Your task to perform on an android device: Add macbook to the cart on newegg.com, then select checkout. Image 0: 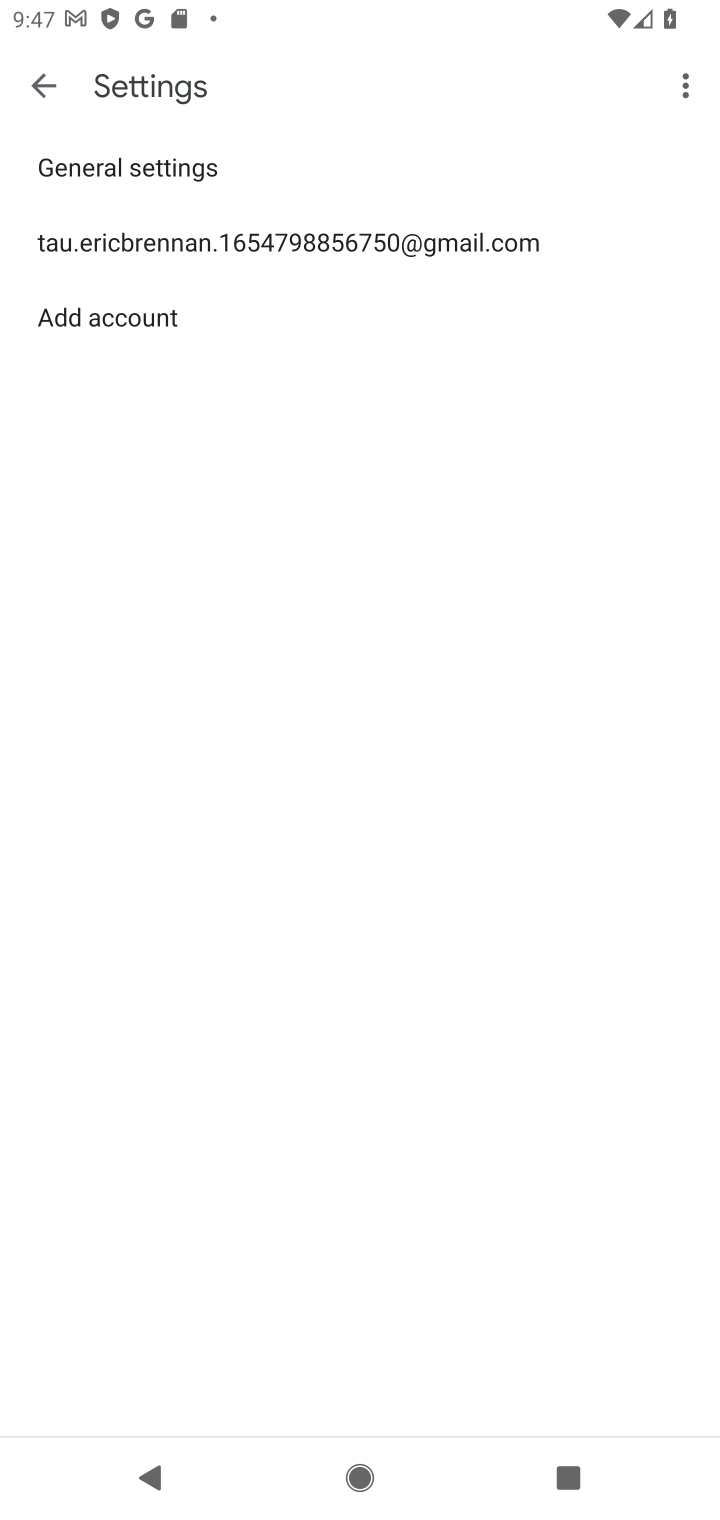
Step 0: press home button
Your task to perform on an android device: Add macbook to the cart on newegg.com, then select checkout. Image 1: 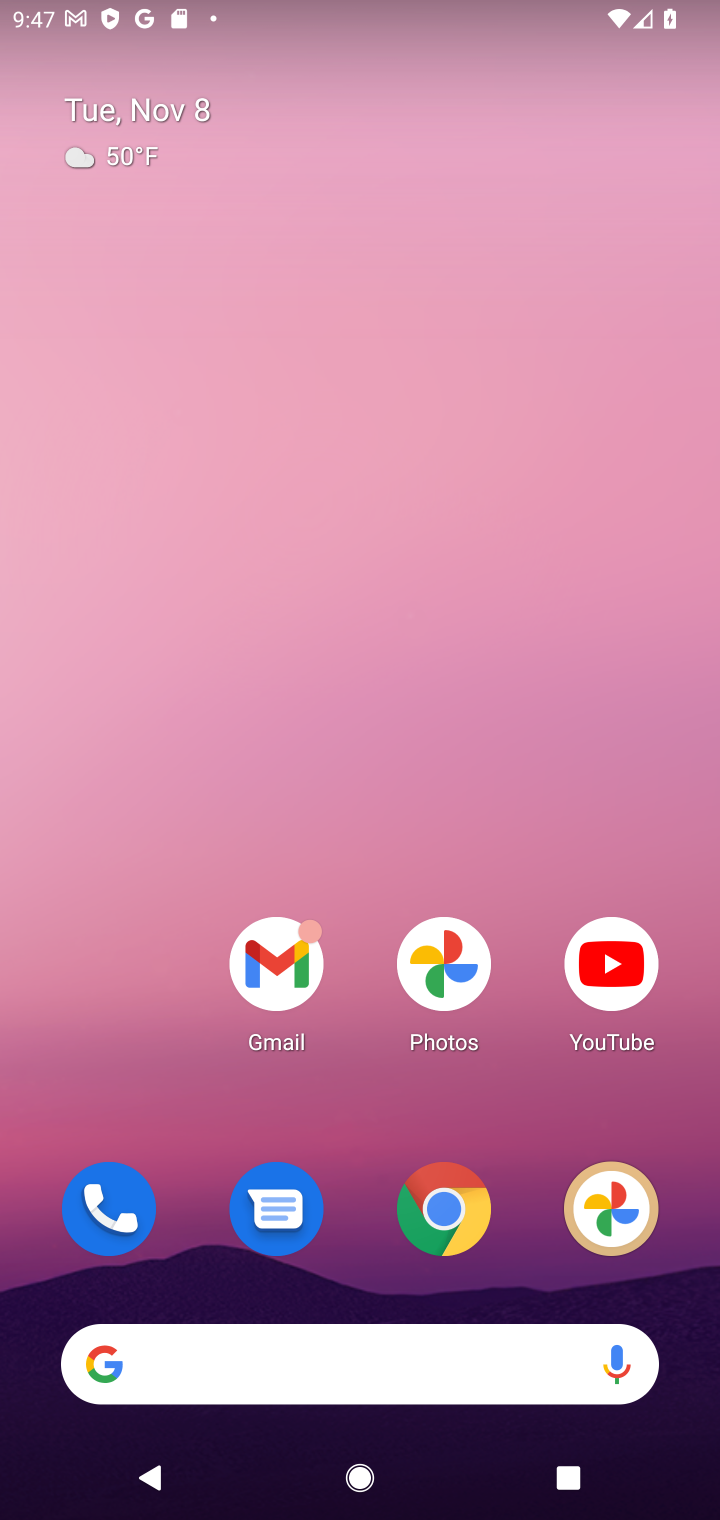
Step 1: click (444, 1207)
Your task to perform on an android device: Add macbook to the cart on newegg.com, then select checkout. Image 2: 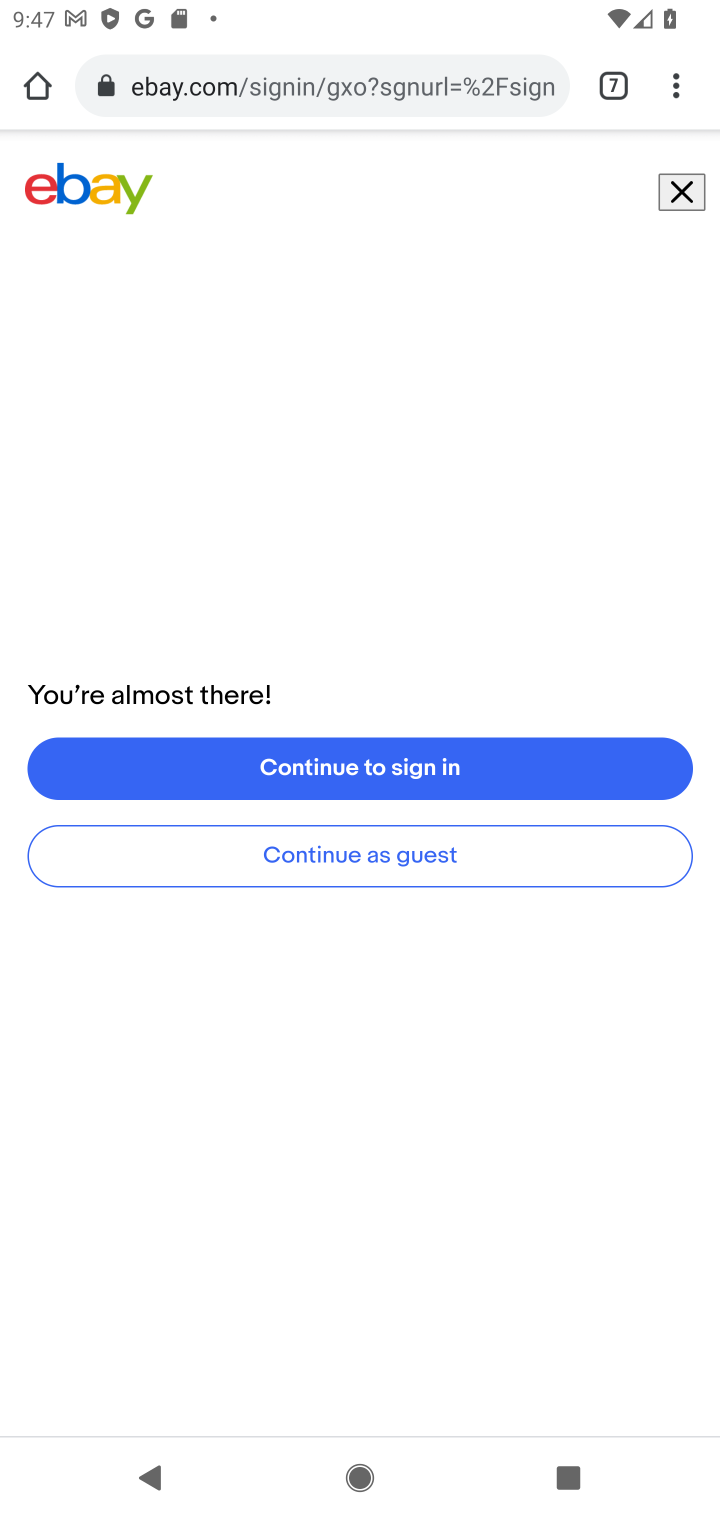
Step 2: click (619, 81)
Your task to perform on an android device: Add macbook to the cart on newegg.com, then select checkout. Image 3: 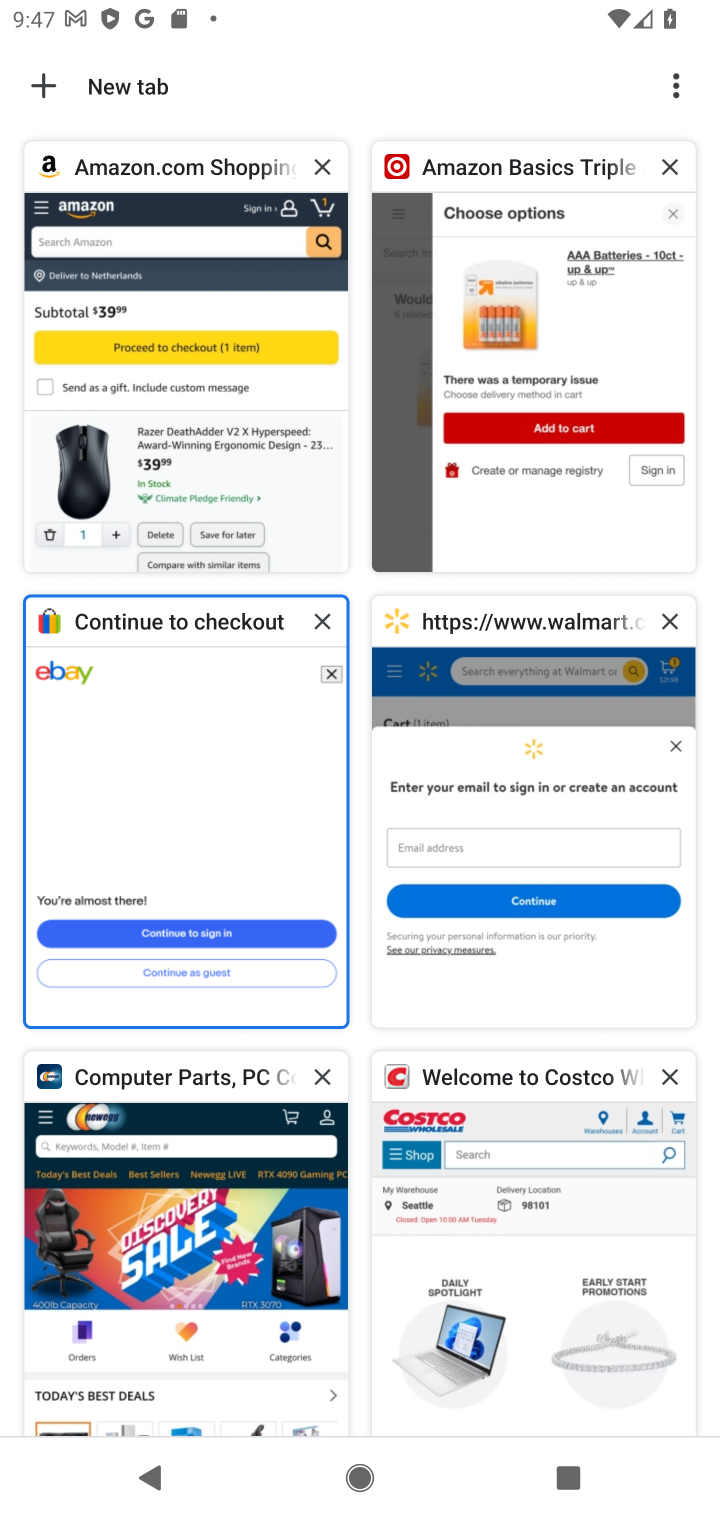
Step 3: click (46, 1295)
Your task to perform on an android device: Add macbook to the cart on newegg.com, then select checkout. Image 4: 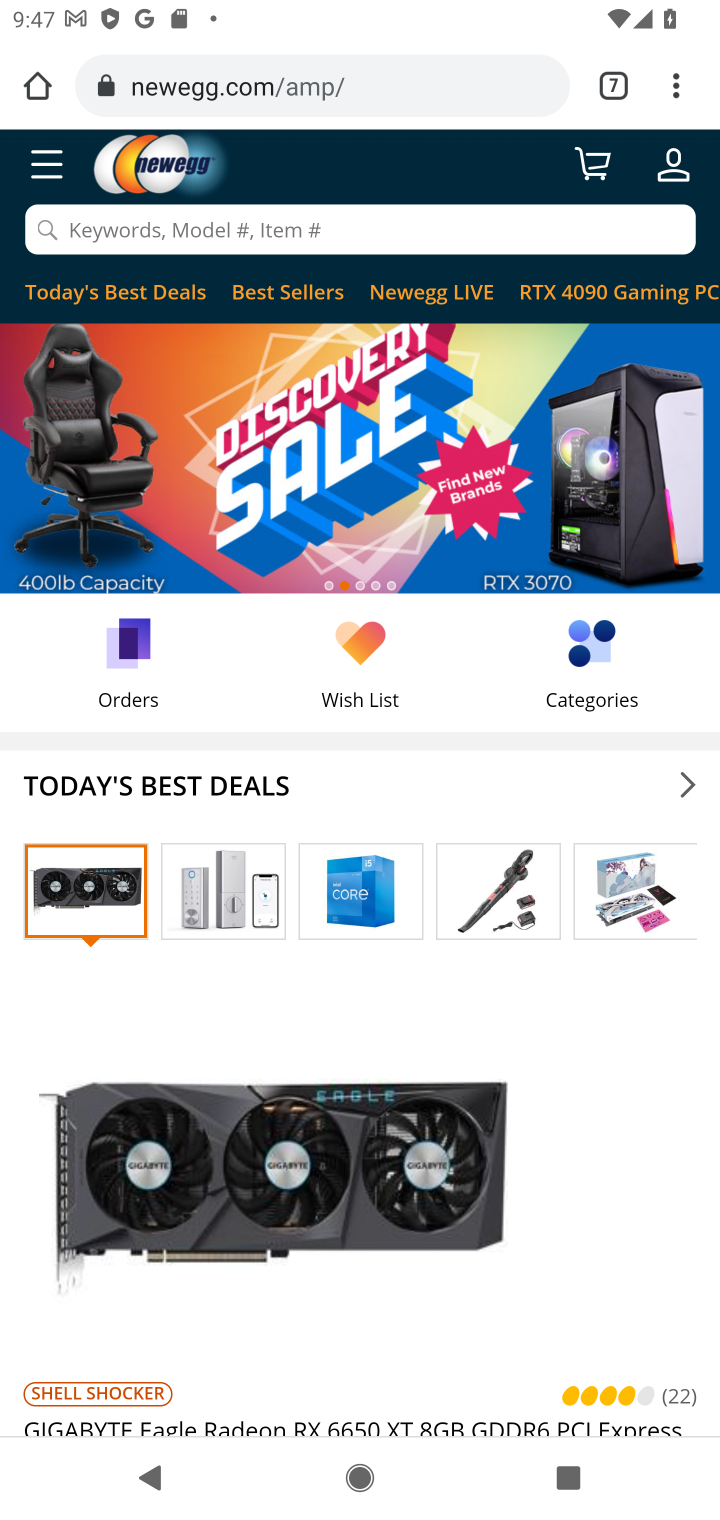
Step 4: click (178, 233)
Your task to perform on an android device: Add macbook to the cart on newegg.com, then select checkout. Image 5: 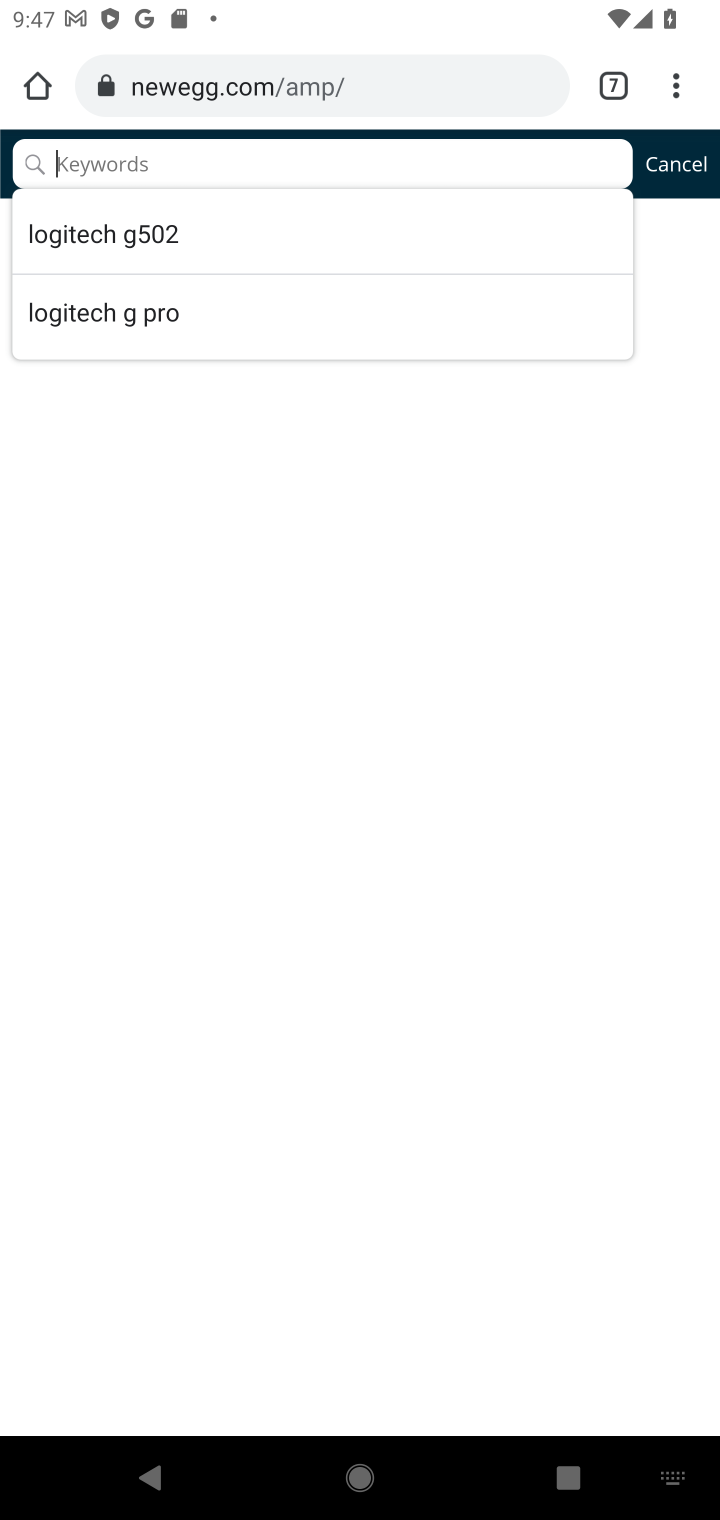
Step 5: type "macbook"
Your task to perform on an android device: Add macbook to the cart on newegg.com, then select checkout. Image 6: 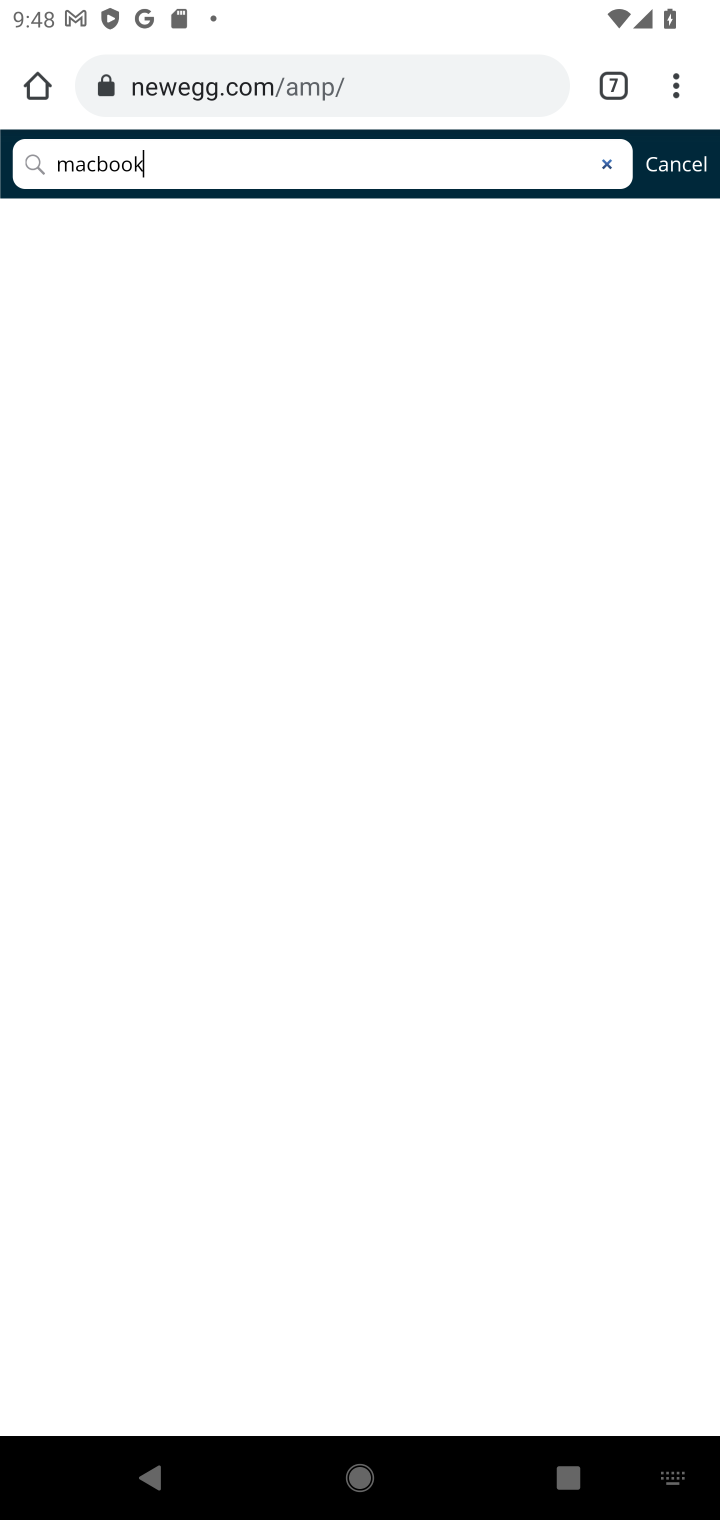
Step 6: click (30, 159)
Your task to perform on an android device: Add macbook to the cart on newegg.com, then select checkout. Image 7: 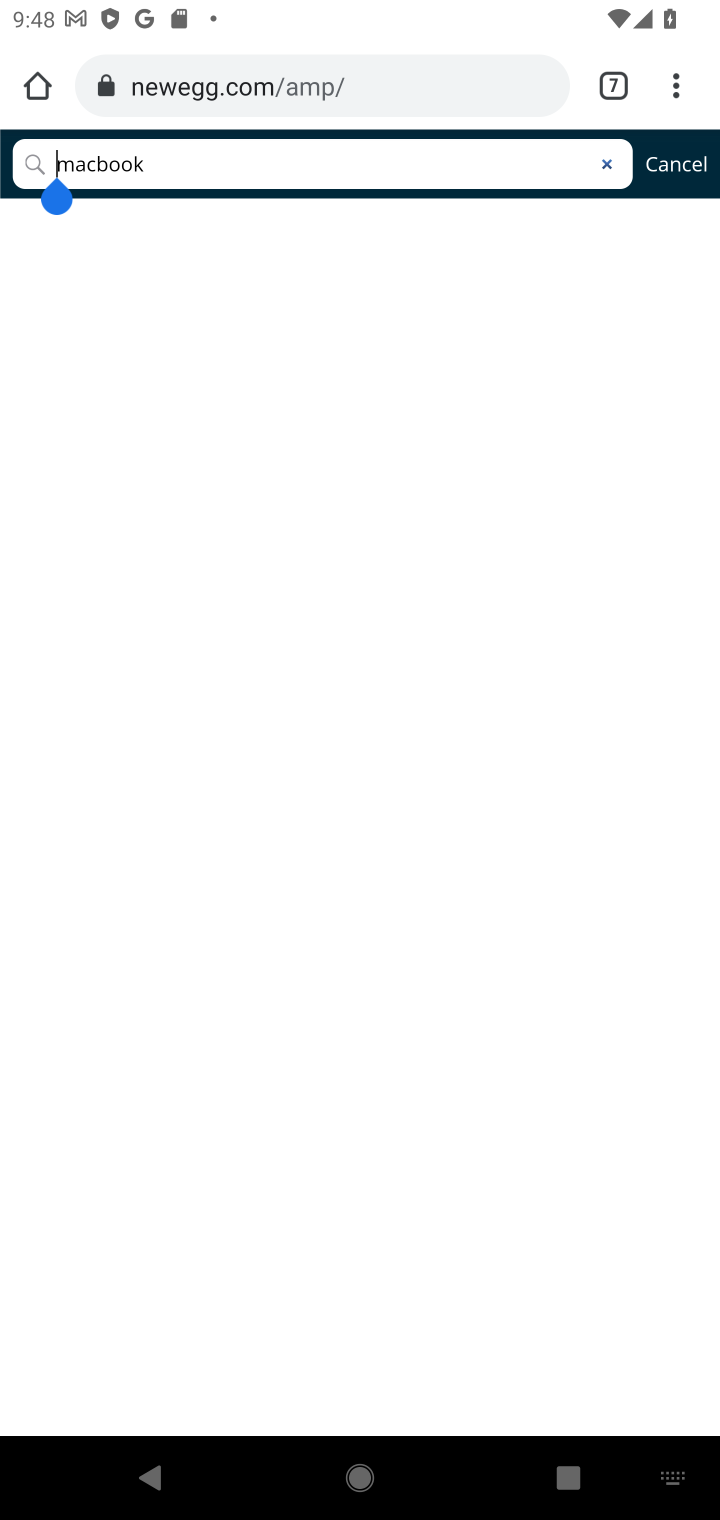
Step 7: click (295, 87)
Your task to perform on an android device: Add macbook to the cart on newegg.com, then select checkout. Image 8: 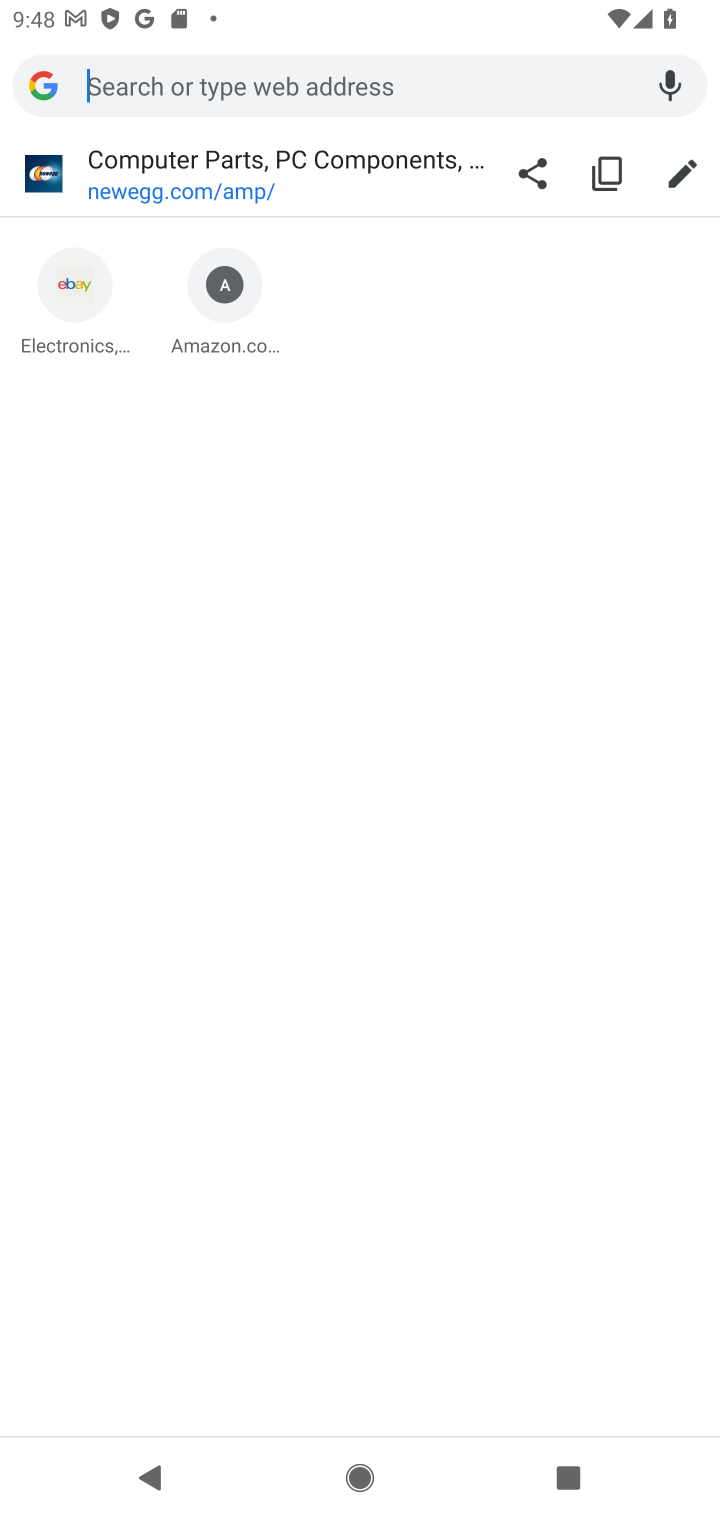
Step 8: type "newegg"
Your task to perform on an android device: Add macbook to the cart on newegg.com, then select checkout. Image 9: 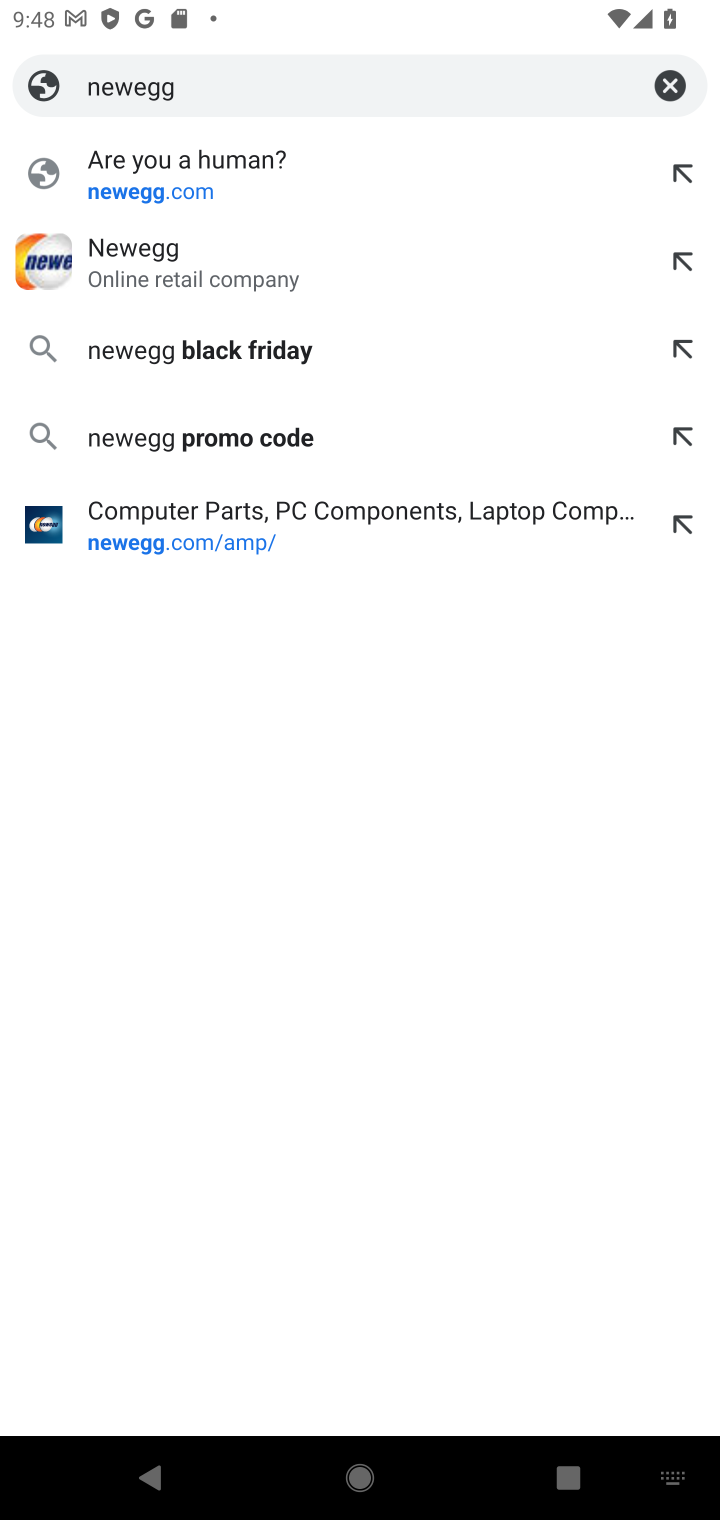
Step 9: click (126, 257)
Your task to perform on an android device: Add macbook to the cart on newegg.com, then select checkout. Image 10: 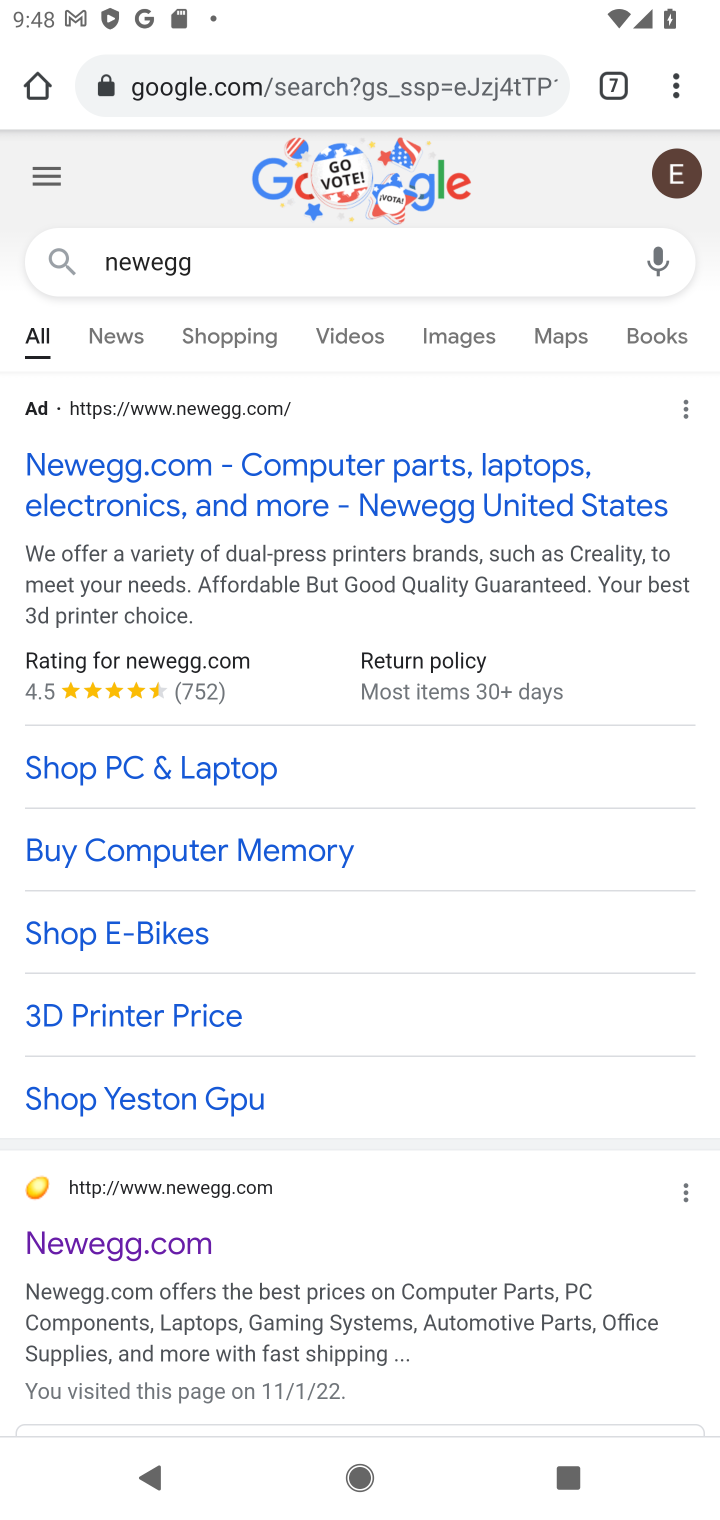
Step 10: drag from (155, 1278) to (290, 378)
Your task to perform on an android device: Add macbook to the cart on newegg.com, then select checkout. Image 11: 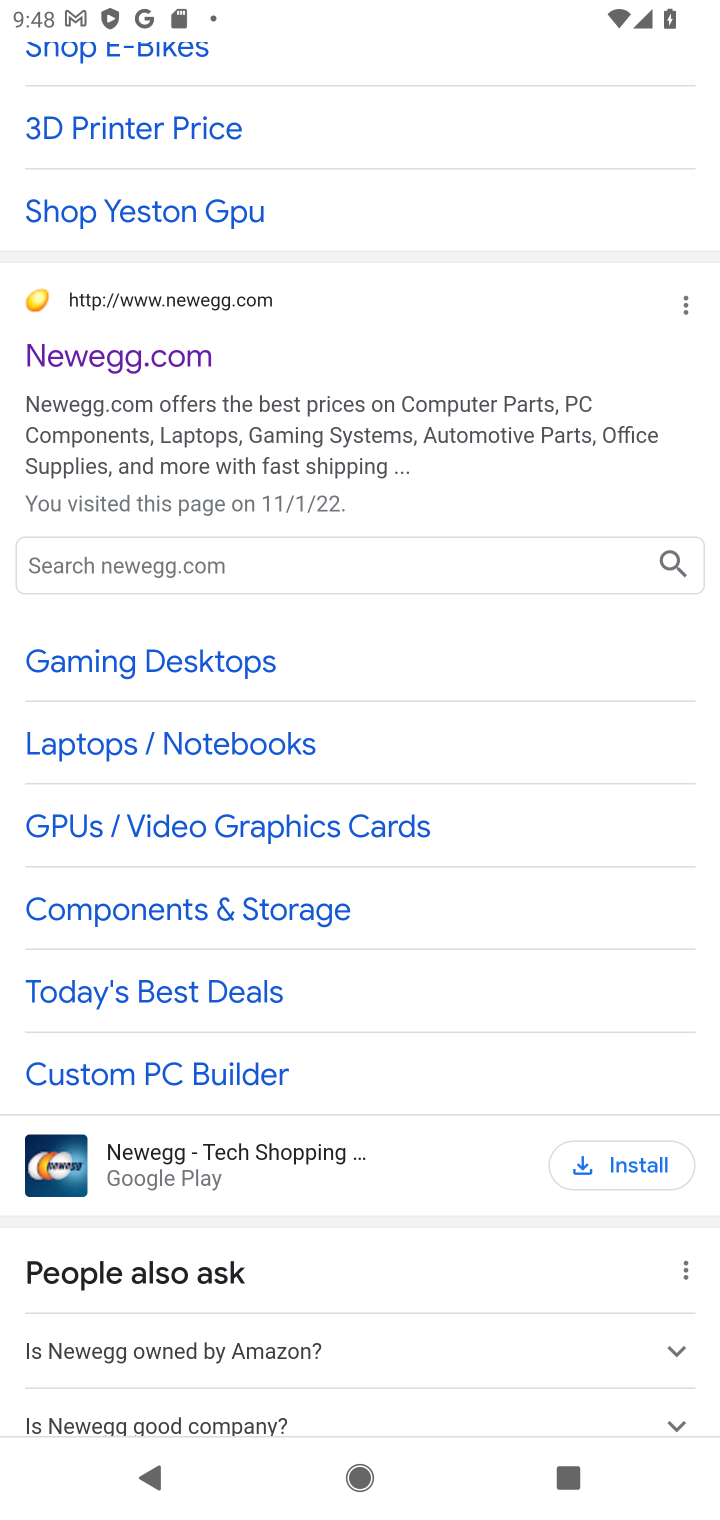
Step 11: click (87, 553)
Your task to perform on an android device: Add macbook to the cart on newegg.com, then select checkout. Image 12: 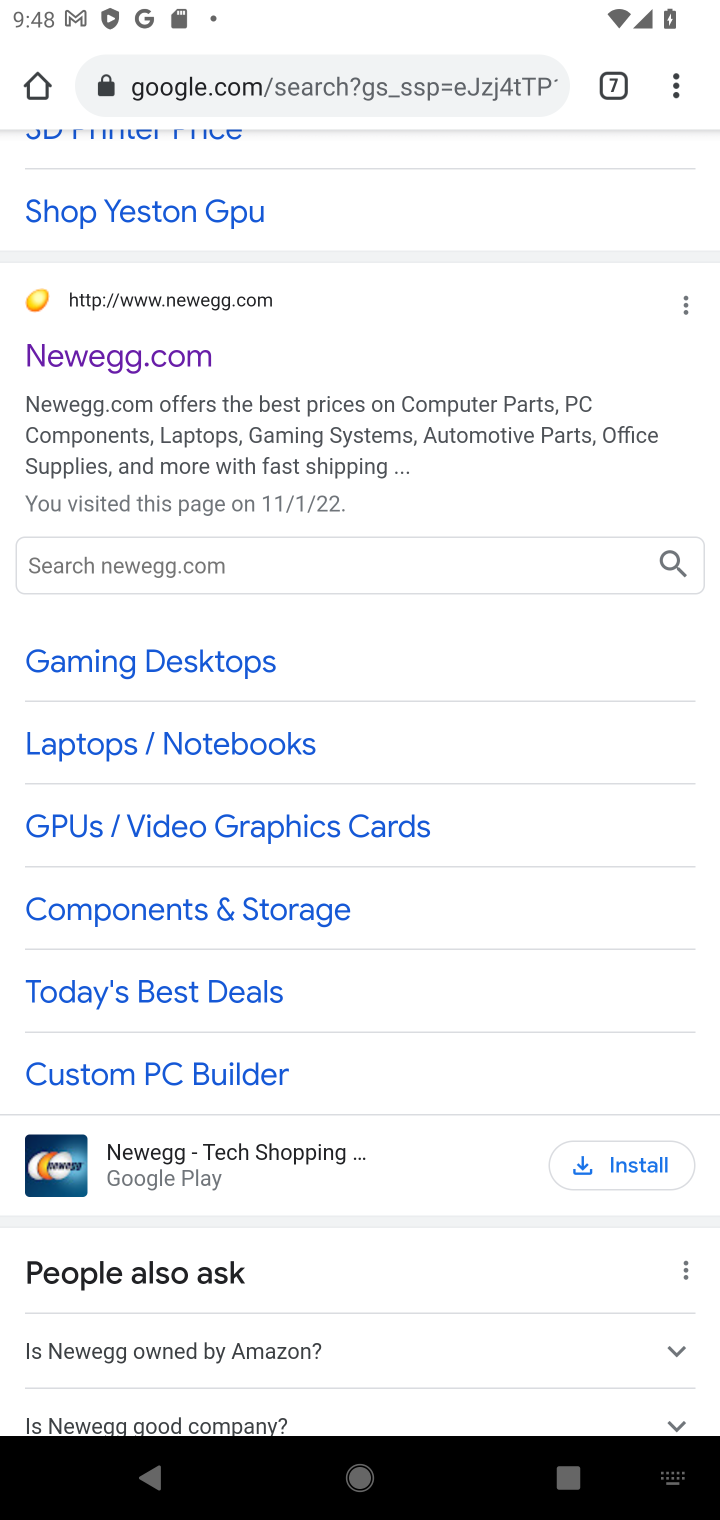
Step 12: type "macbook"
Your task to perform on an android device: Add macbook to the cart on newegg.com, then select checkout. Image 13: 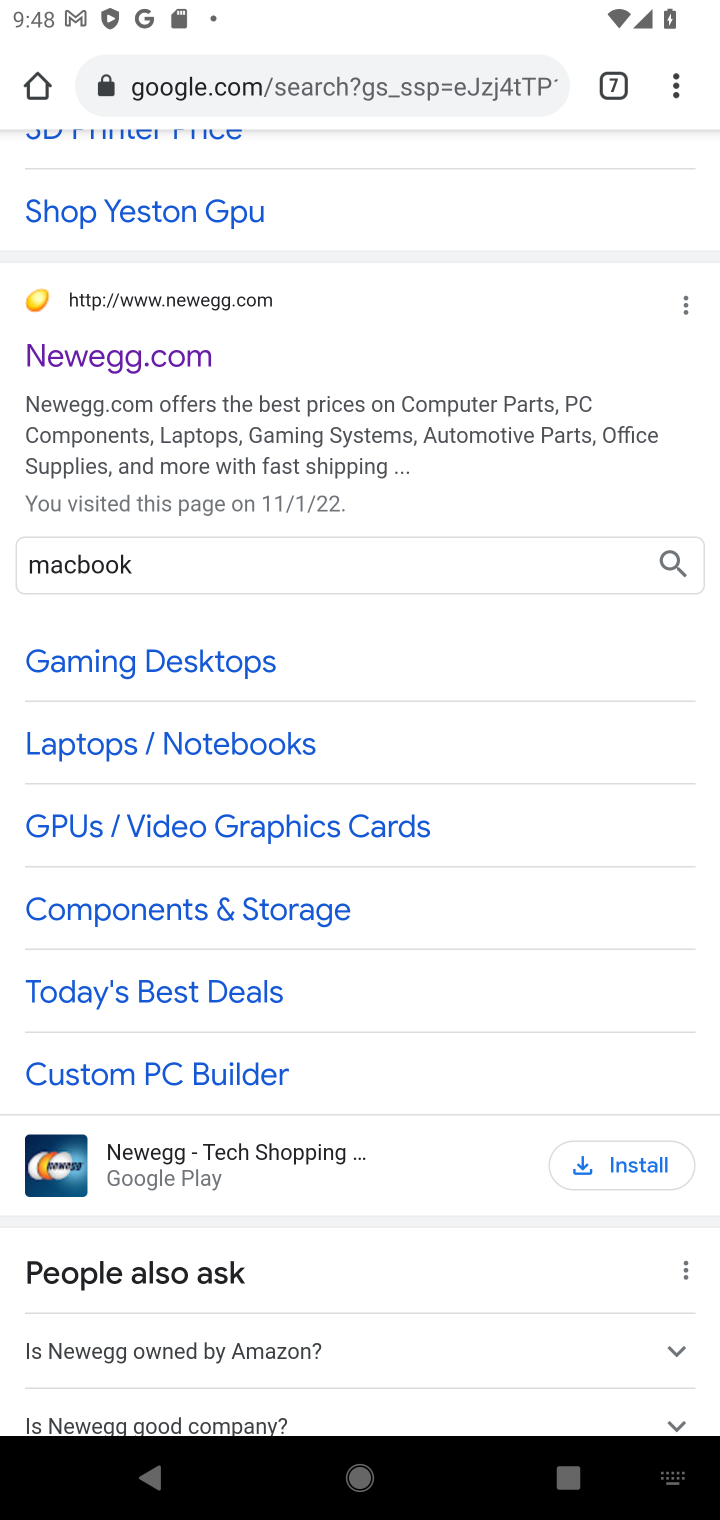
Step 13: click (673, 564)
Your task to perform on an android device: Add macbook to the cart on newegg.com, then select checkout. Image 14: 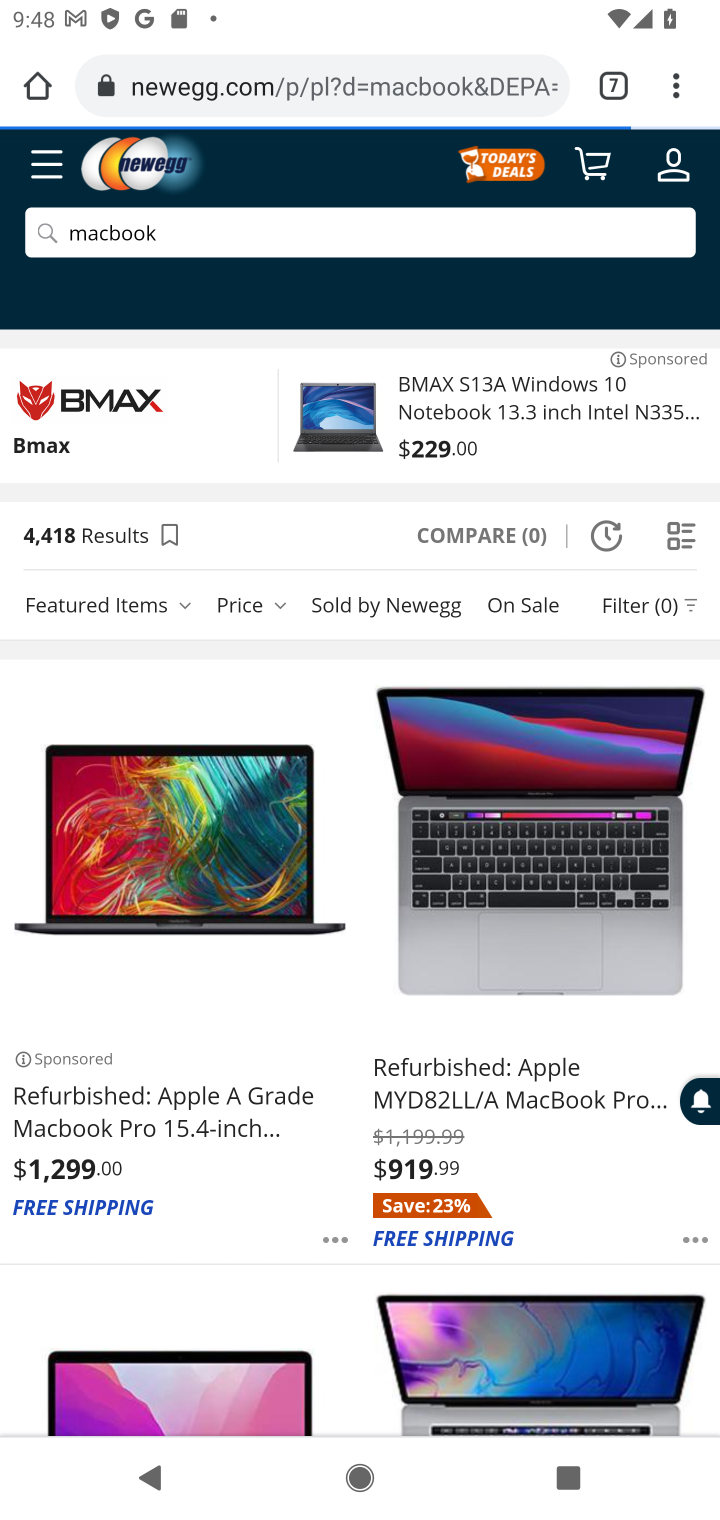
Step 14: click (462, 1093)
Your task to perform on an android device: Add macbook to the cart on newegg.com, then select checkout. Image 15: 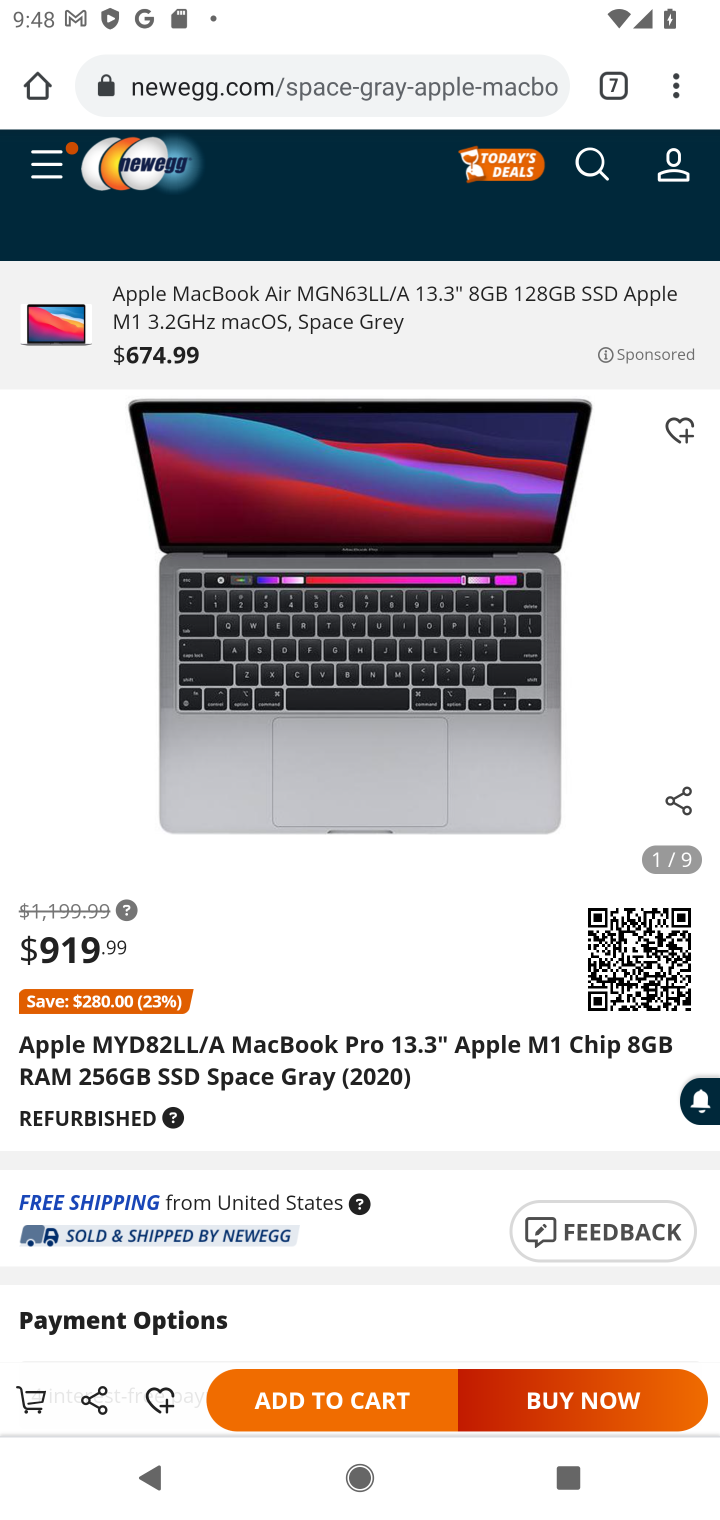
Step 15: click (365, 1378)
Your task to perform on an android device: Add macbook to the cart on newegg.com, then select checkout. Image 16: 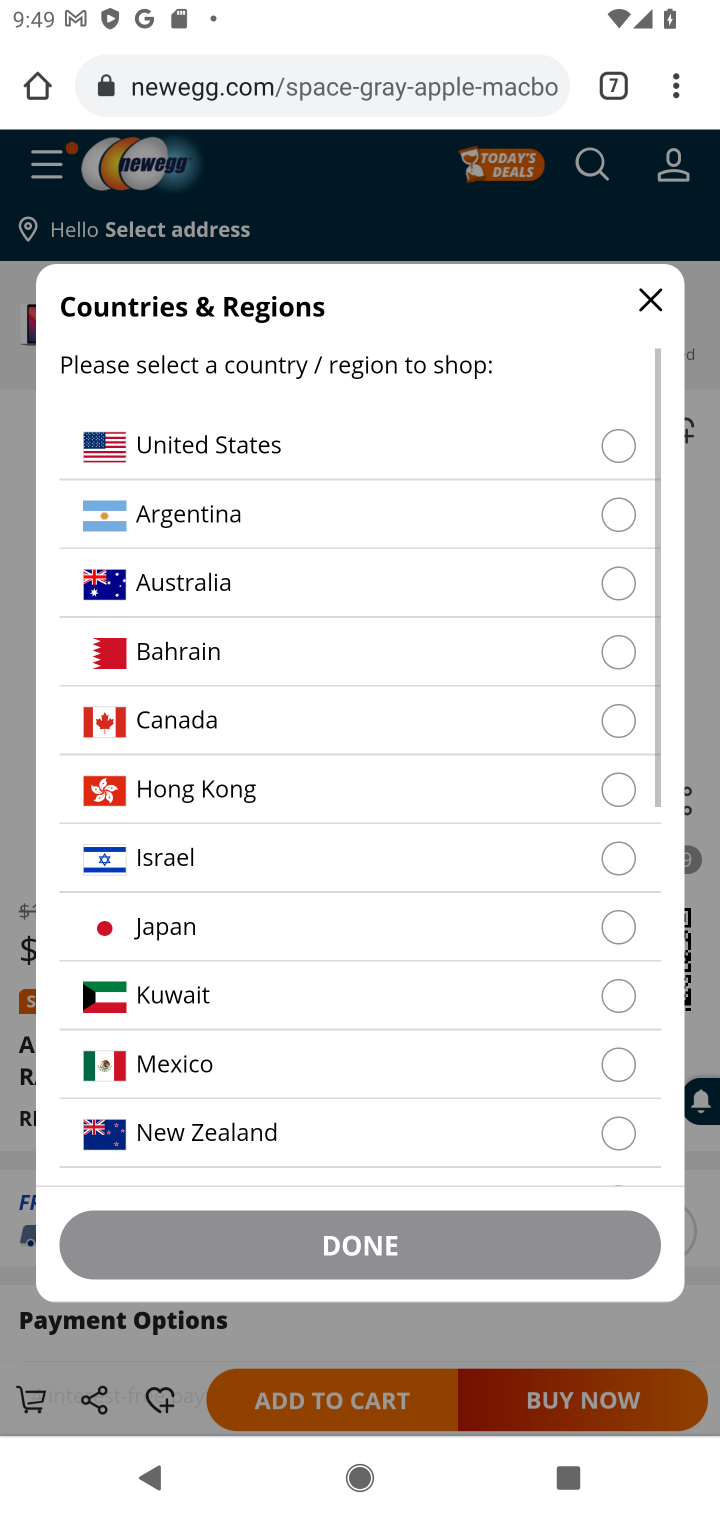
Step 16: click (623, 443)
Your task to perform on an android device: Add macbook to the cart on newegg.com, then select checkout. Image 17: 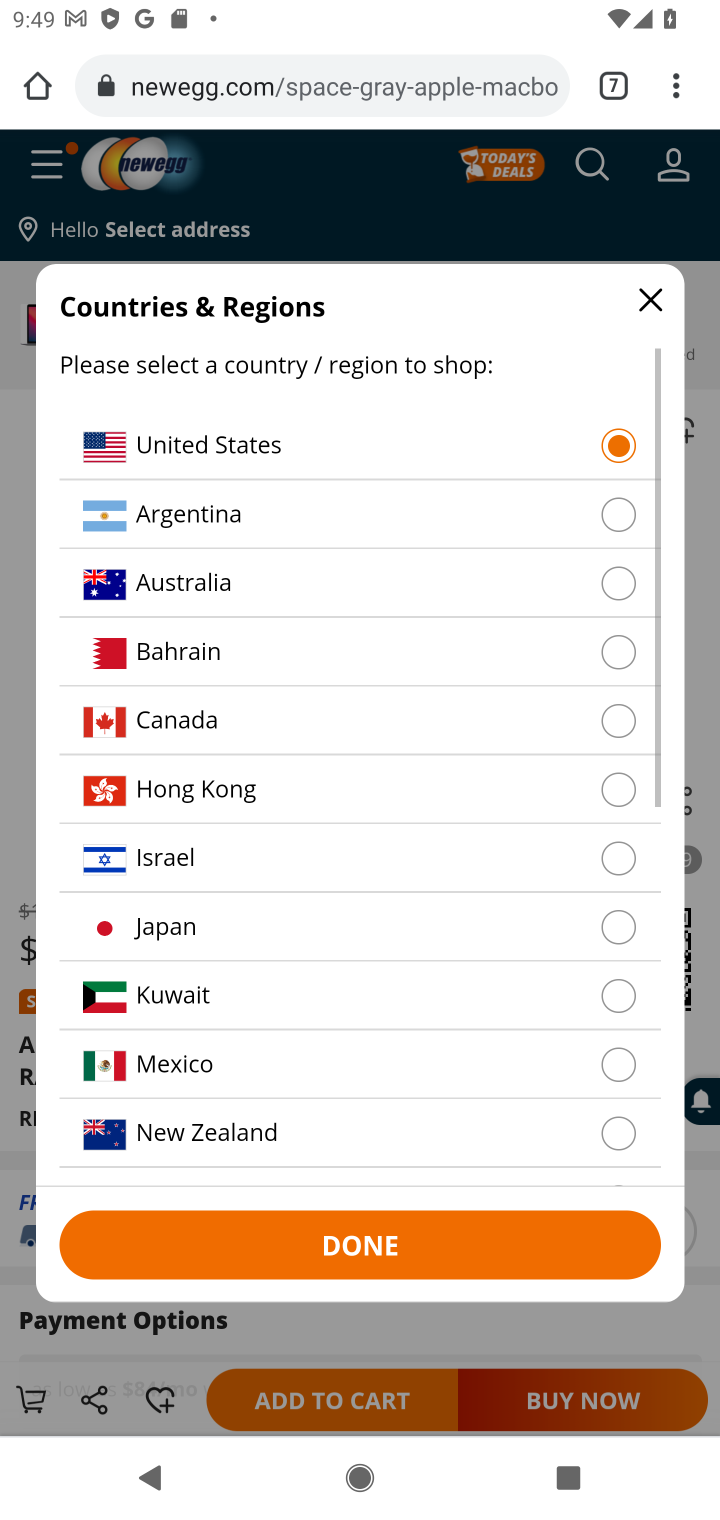
Step 17: click (347, 1250)
Your task to perform on an android device: Add macbook to the cart on newegg.com, then select checkout. Image 18: 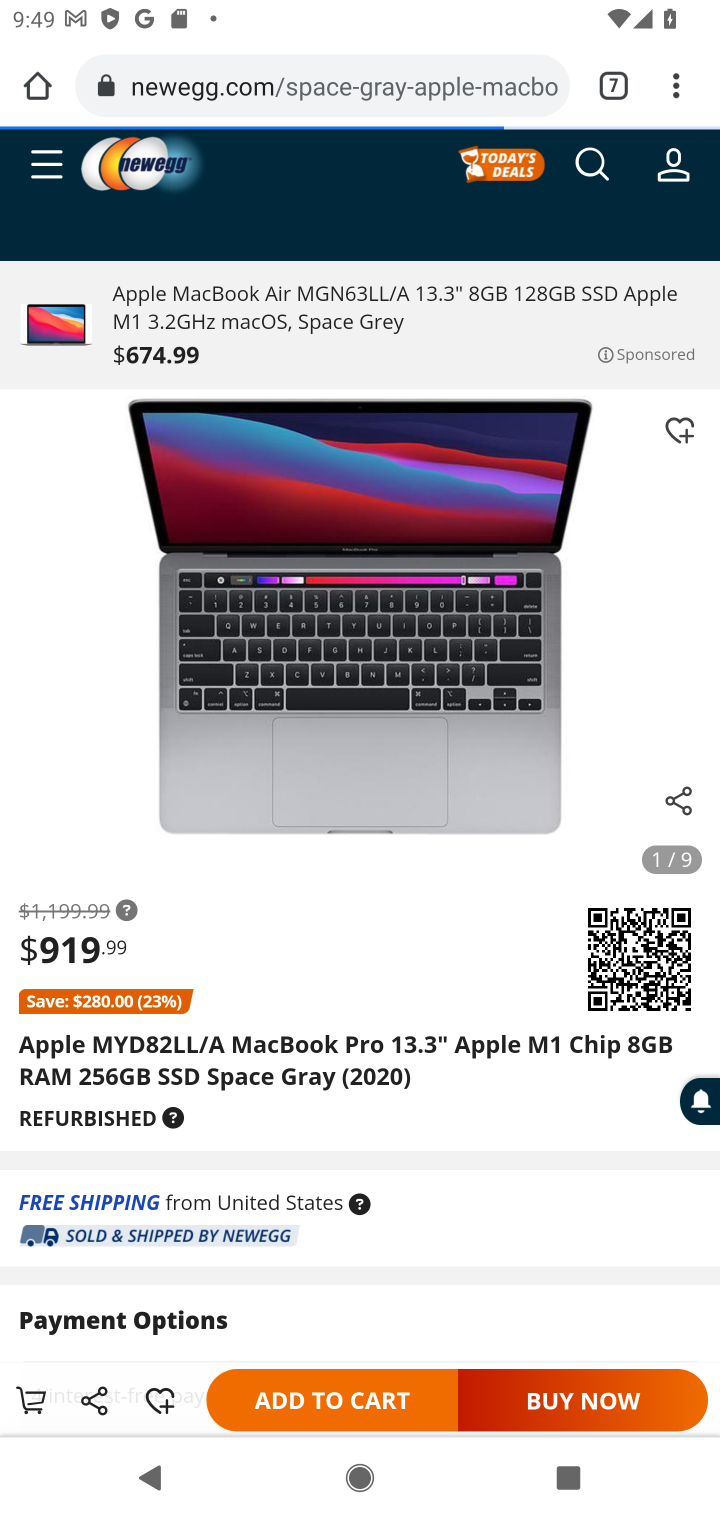
Step 18: click (344, 1409)
Your task to perform on an android device: Add macbook to the cart on newegg.com, then select checkout. Image 19: 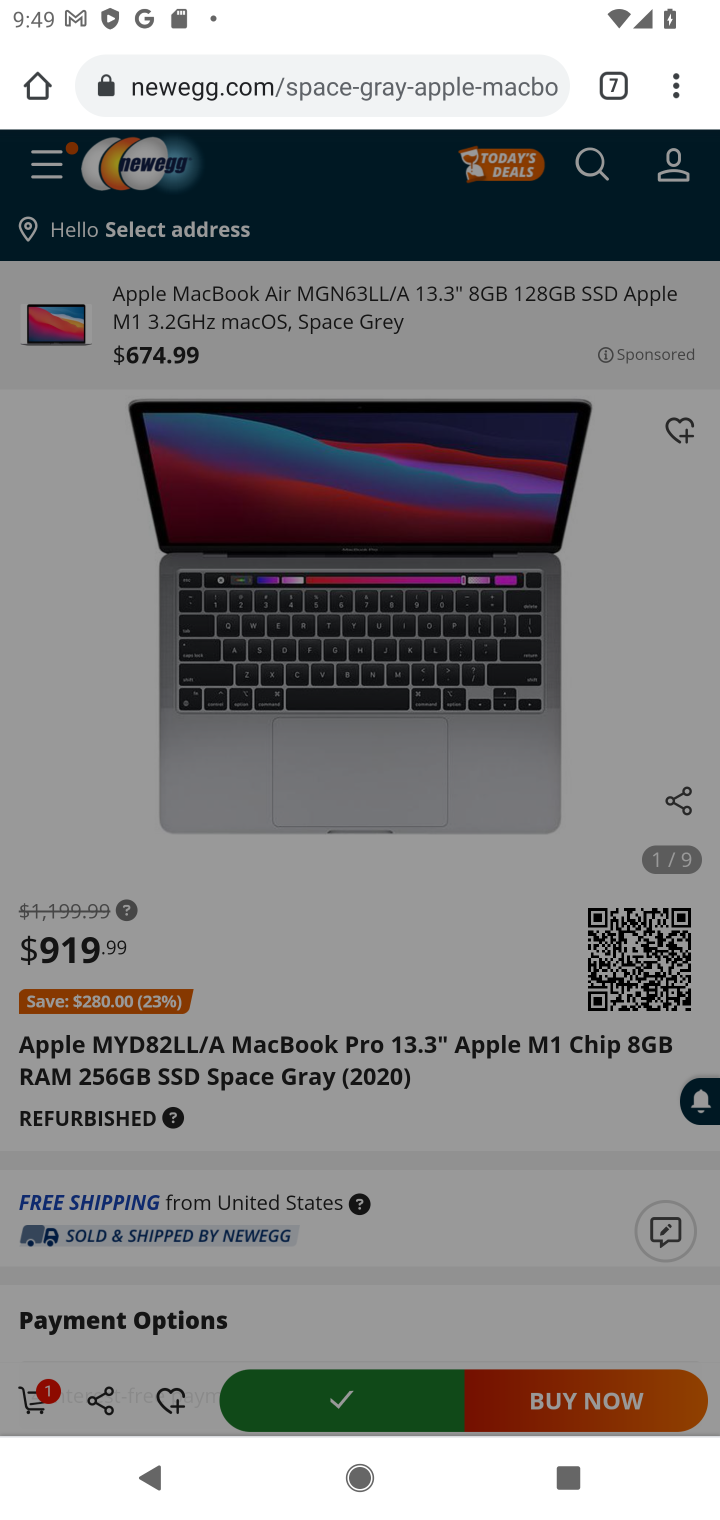
Step 19: click (37, 1397)
Your task to perform on an android device: Add macbook to the cart on newegg.com, then select checkout. Image 20: 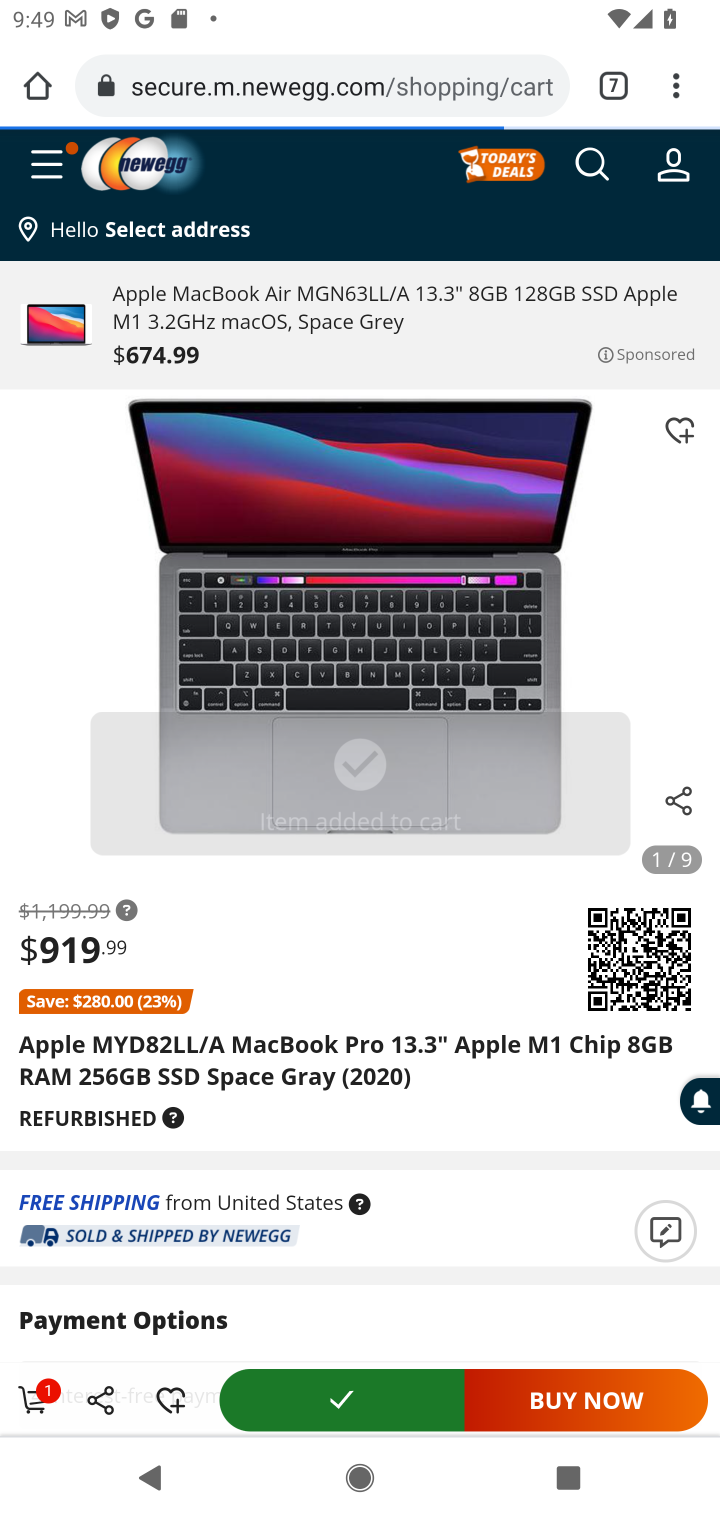
Step 20: click (40, 1395)
Your task to perform on an android device: Add macbook to the cart on newegg.com, then select checkout. Image 21: 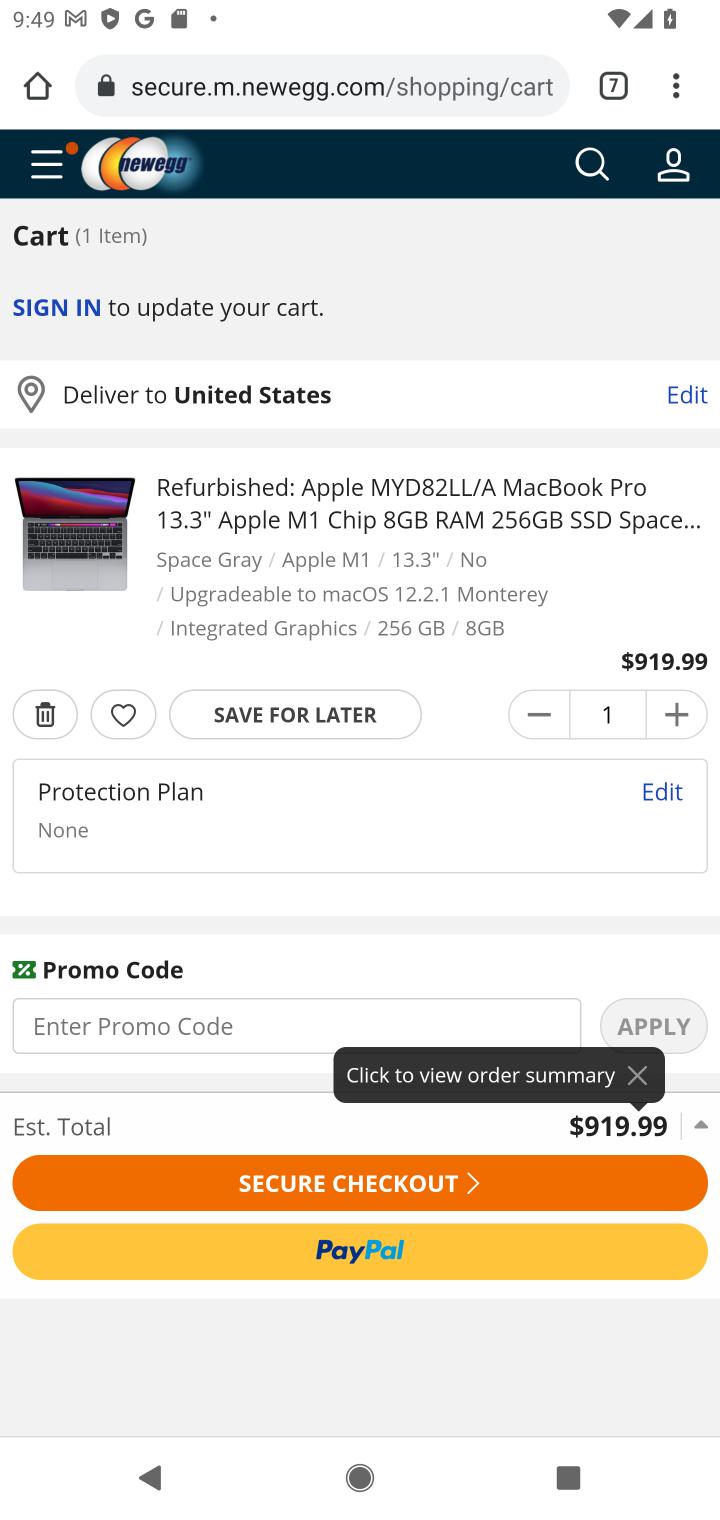
Step 21: click (358, 1185)
Your task to perform on an android device: Add macbook to the cart on newegg.com, then select checkout. Image 22: 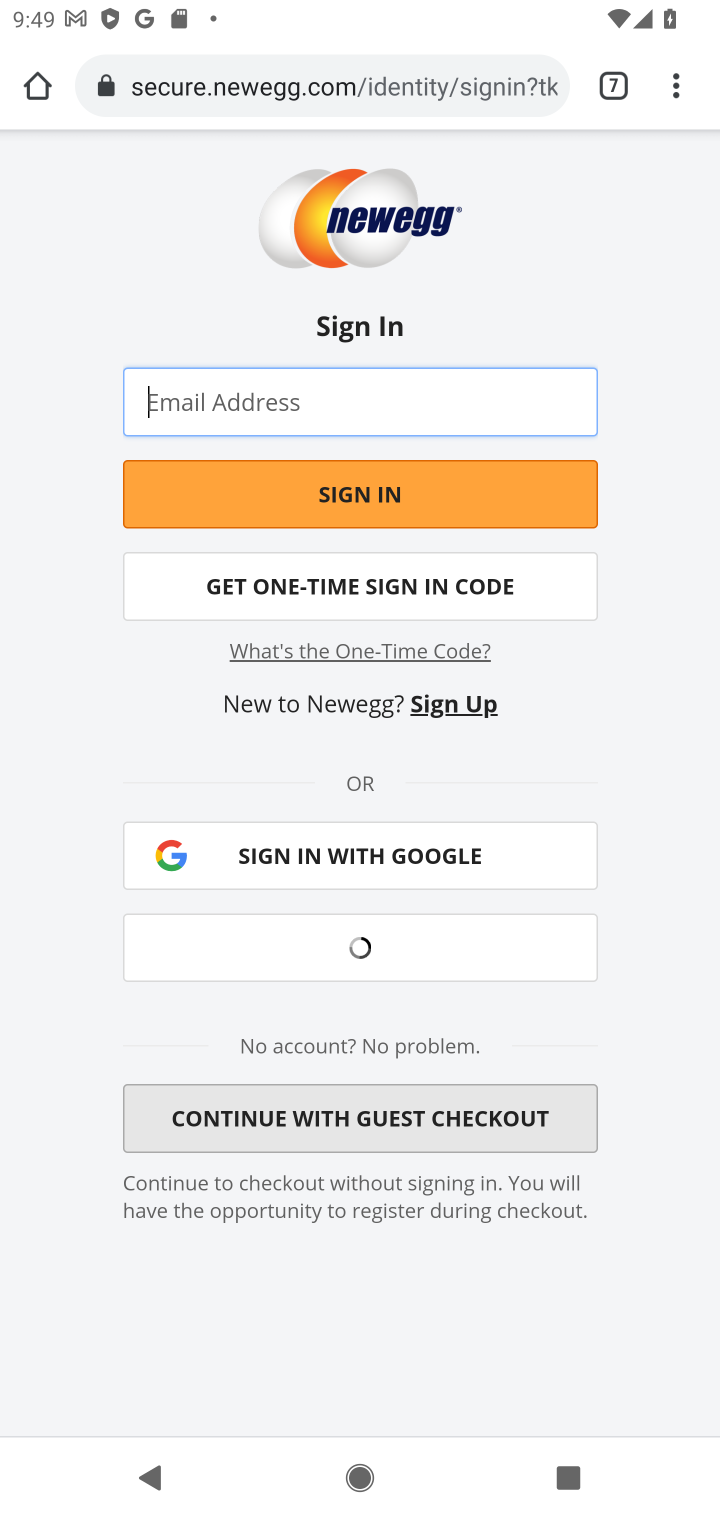
Step 22: task complete